Your task to perform on an android device: Go to eBay Image 0: 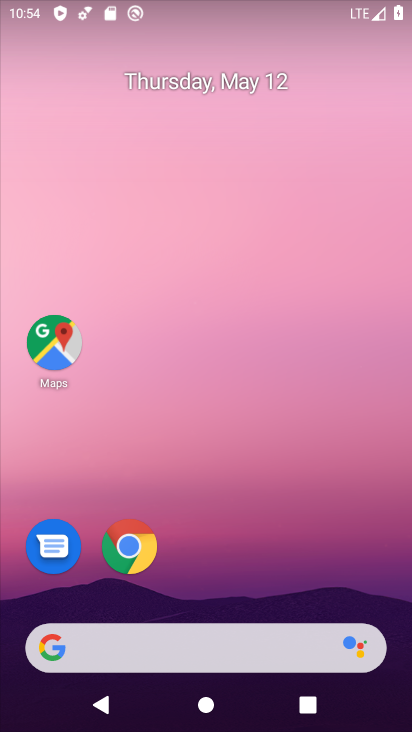
Step 0: click (130, 544)
Your task to perform on an android device: Go to eBay Image 1: 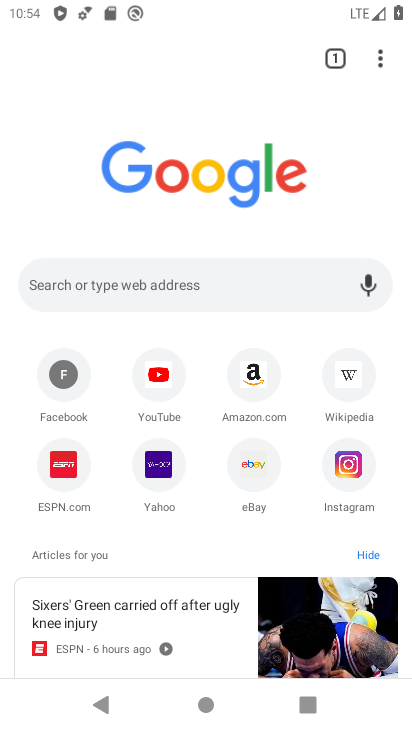
Step 1: click (201, 277)
Your task to perform on an android device: Go to eBay Image 2: 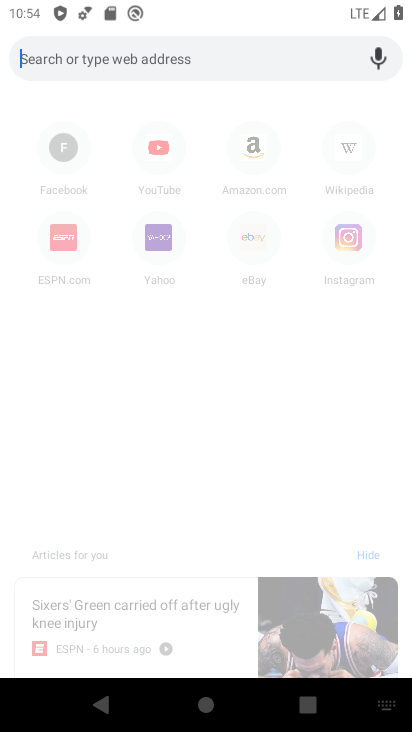
Step 2: type "eBay"
Your task to perform on an android device: Go to eBay Image 3: 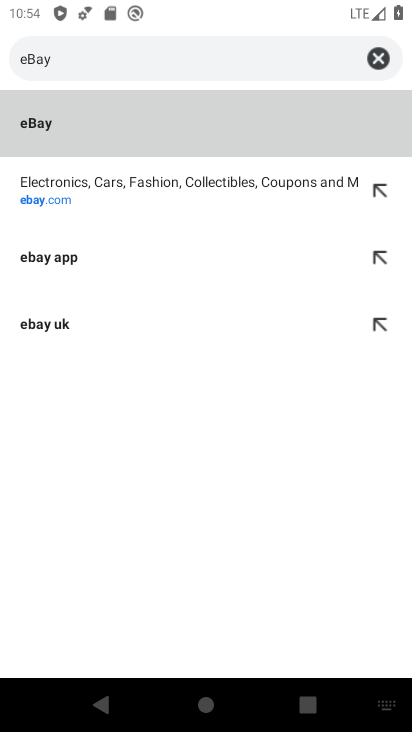
Step 3: click (47, 127)
Your task to perform on an android device: Go to eBay Image 4: 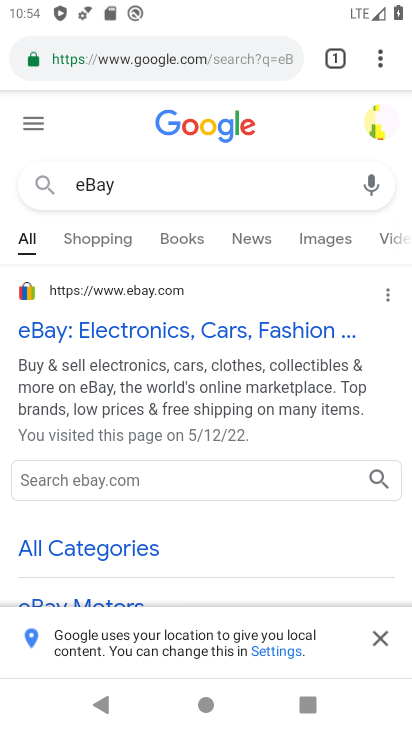
Step 4: click (99, 327)
Your task to perform on an android device: Go to eBay Image 5: 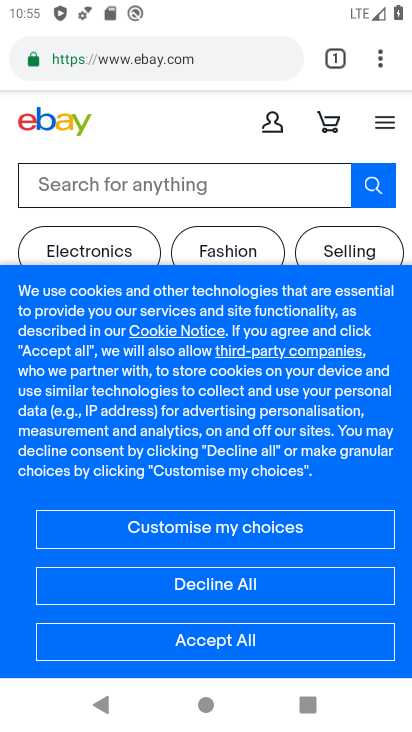
Step 5: task complete